Your task to perform on an android device: Is it going to rain today? Image 0: 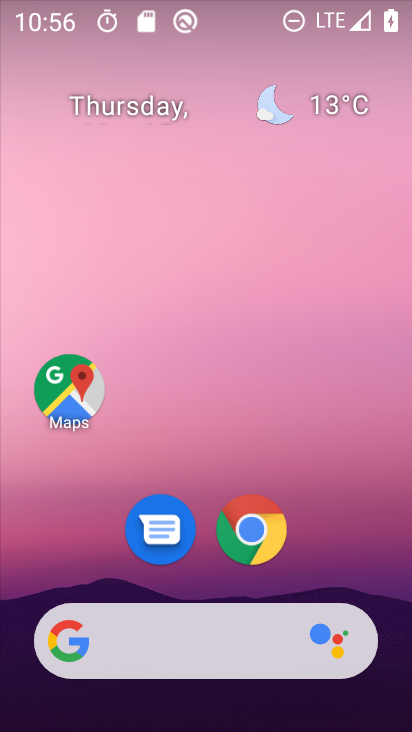
Step 0: click (75, 408)
Your task to perform on an android device: Is it going to rain today? Image 1: 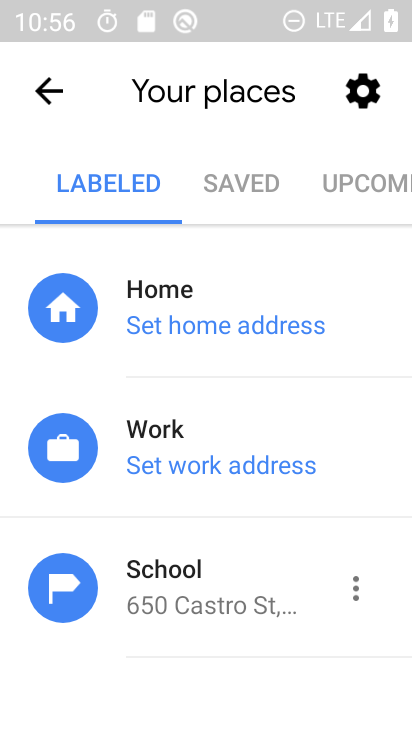
Step 1: drag from (45, 102) to (57, 65)
Your task to perform on an android device: Is it going to rain today? Image 2: 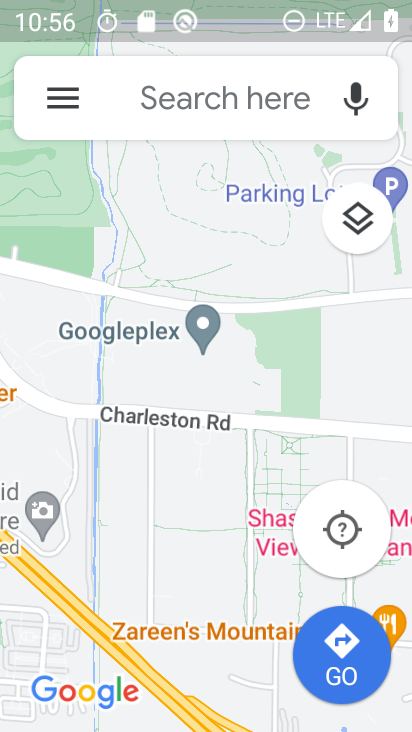
Step 2: click (72, 83)
Your task to perform on an android device: Is it going to rain today? Image 3: 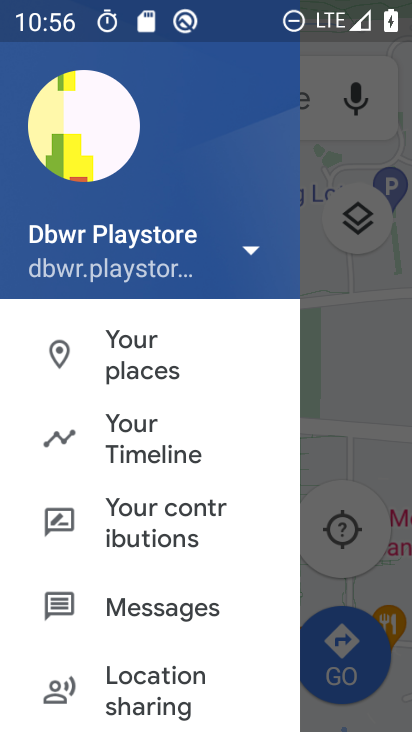
Step 3: drag from (304, 277) to (6, 212)
Your task to perform on an android device: Is it going to rain today? Image 4: 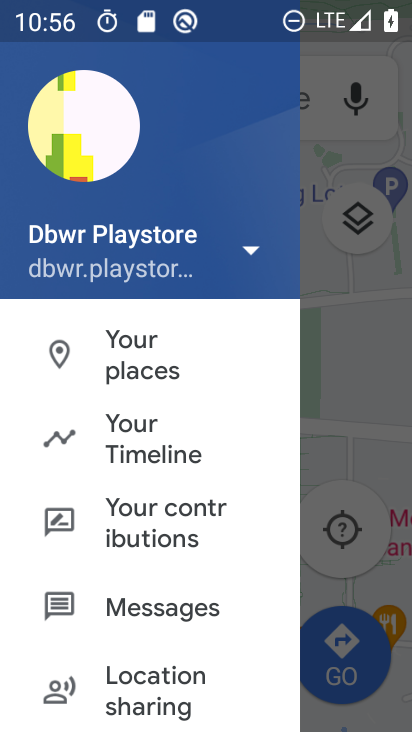
Step 4: drag from (165, 592) to (189, 231)
Your task to perform on an android device: Is it going to rain today? Image 5: 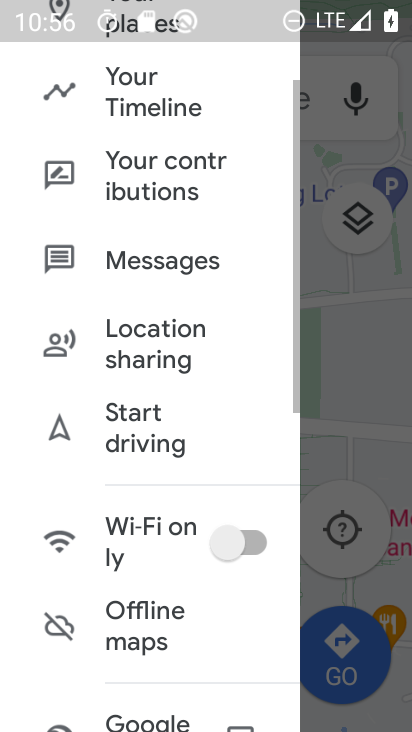
Step 5: click (367, 379)
Your task to perform on an android device: Is it going to rain today? Image 6: 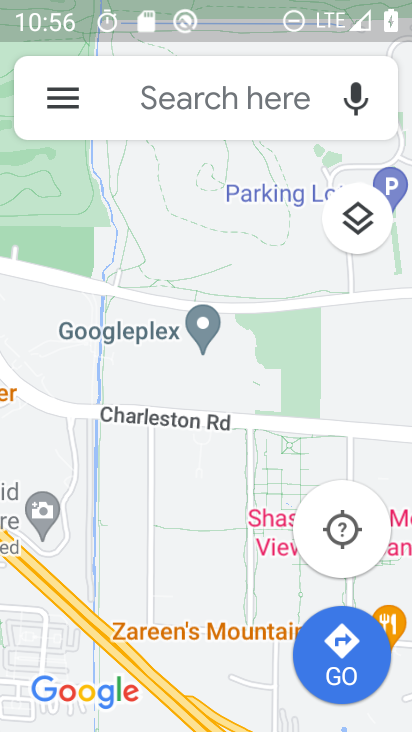
Step 6: press home button
Your task to perform on an android device: Is it going to rain today? Image 7: 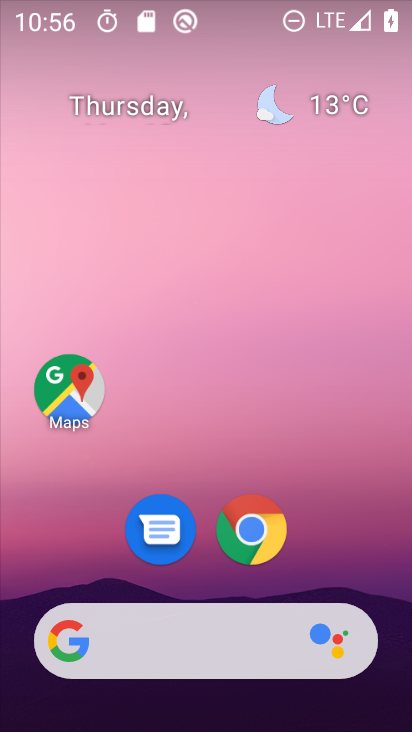
Step 7: click (197, 623)
Your task to perform on an android device: Is it going to rain today? Image 8: 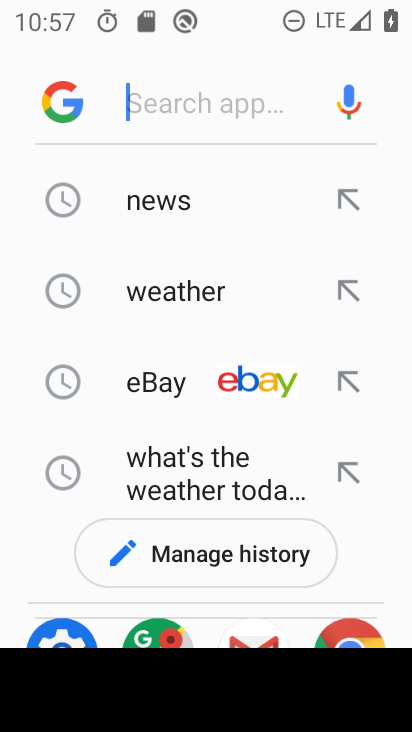
Step 8: click (166, 295)
Your task to perform on an android device: Is it going to rain today? Image 9: 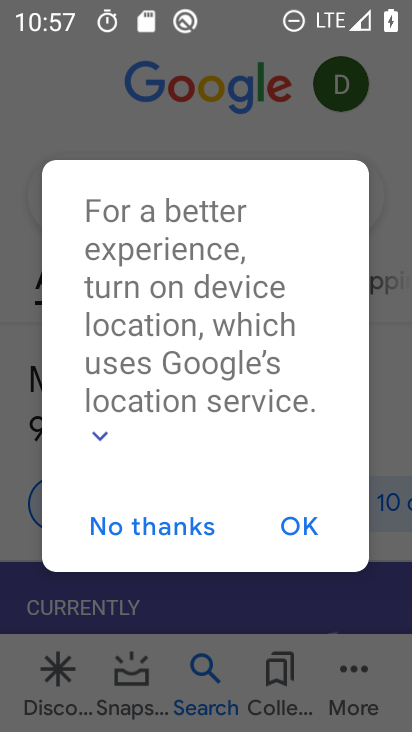
Step 9: click (197, 525)
Your task to perform on an android device: Is it going to rain today? Image 10: 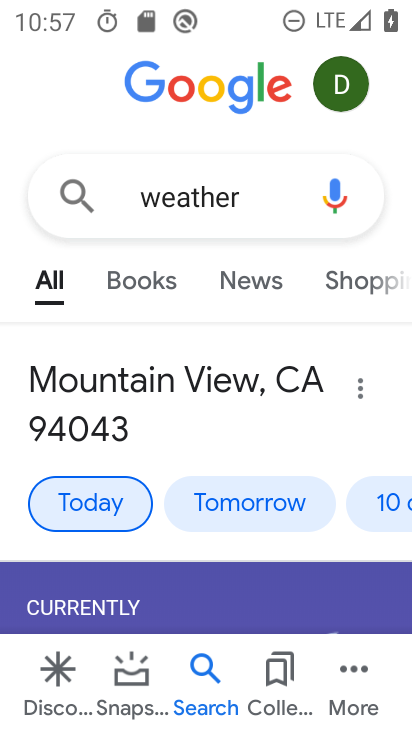
Step 10: task complete